Your task to perform on an android device: Open Google Chrome and open the bookmarks view Image 0: 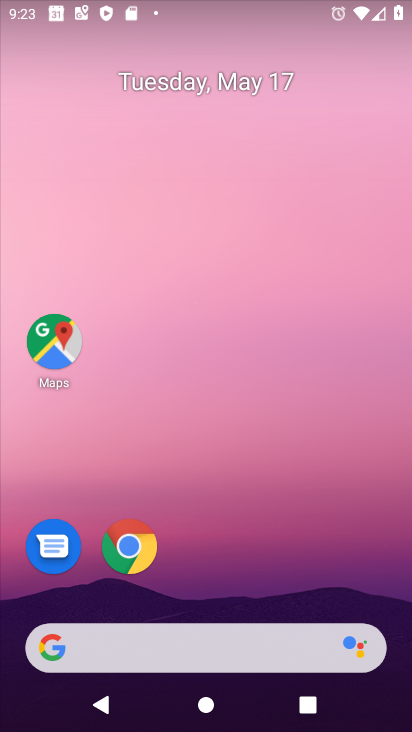
Step 0: click (125, 557)
Your task to perform on an android device: Open Google Chrome and open the bookmarks view Image 1: 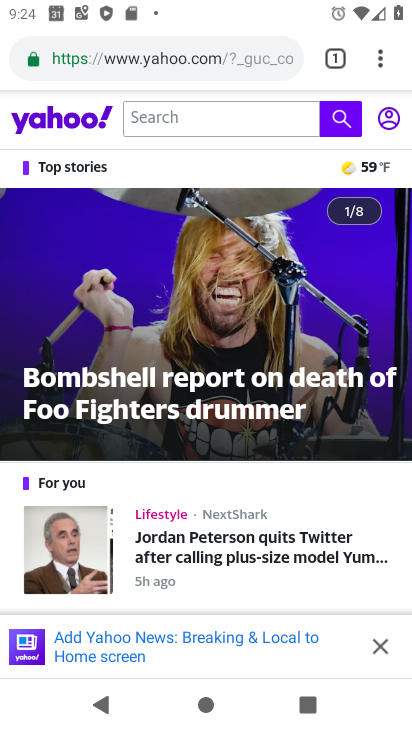
Step 1: click (369, 67)
Your task to perform on an android device: Open Google Chrome and open the bookmarks view Image 2: 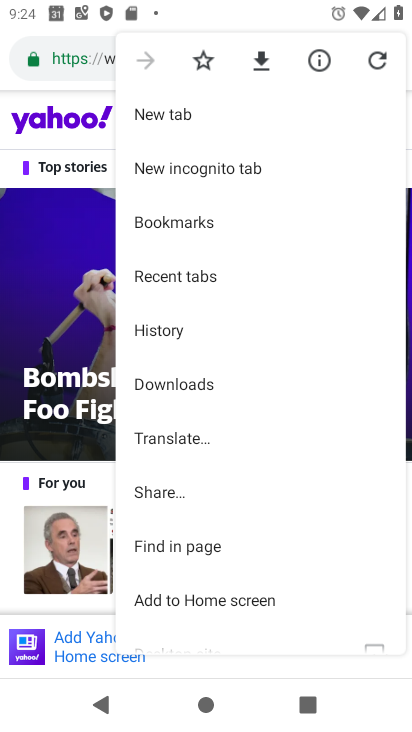
Step 2: click (215, 234)
Your task to perform on an android device: Open Google Chrome and open the bookmarks view Image 3: 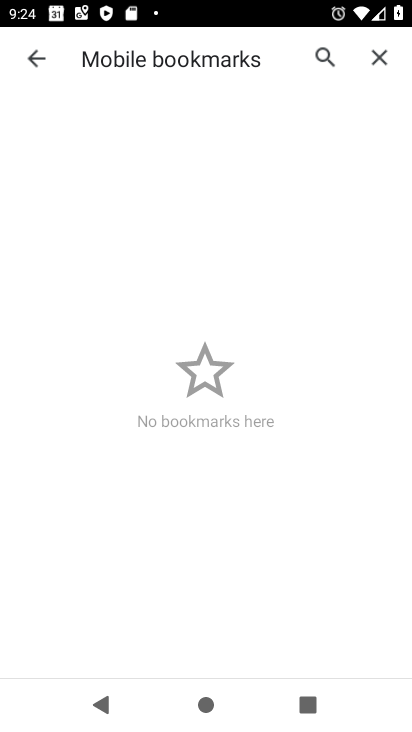
Step 3: task complete